Your task to perform on an android device: What's on my calendar today? Image 0: 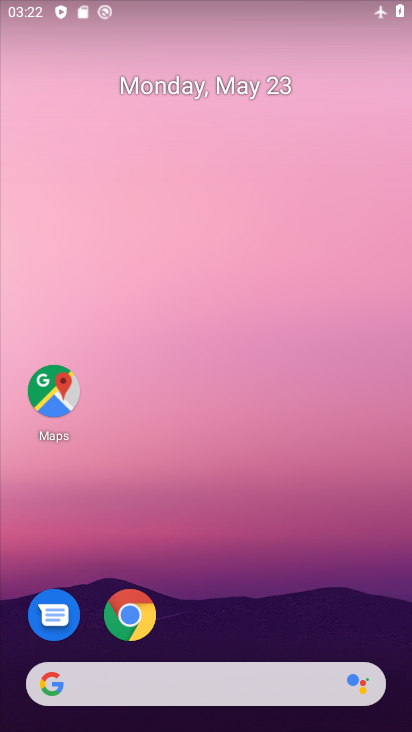
Step 0: drag from (225, 590) to (246, 260)
Your task to perform on an android device: What's on my calendar today? Image 1: 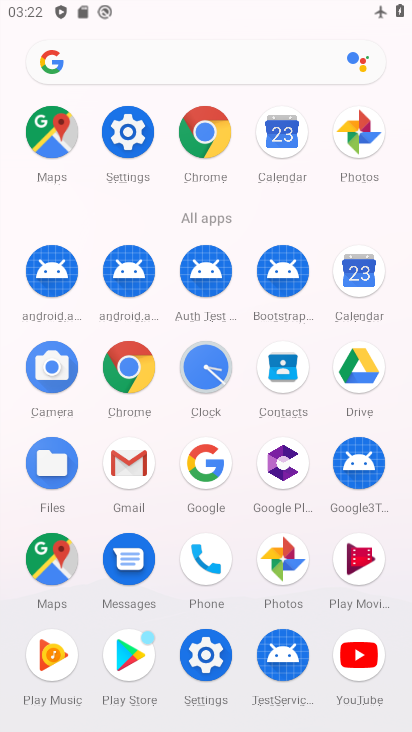
Step 1: click (358, 277)
Your task to perform on an android device: What's on my calendar today? Image 2: 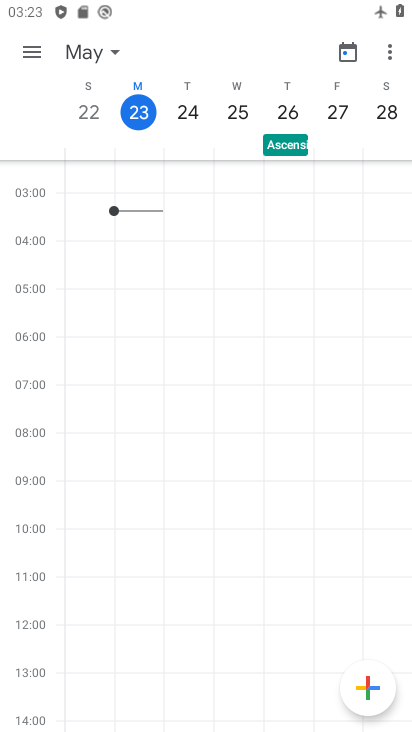
Step 2: task complete